Your task to perform on an android device: set default search engine in the chrome app Image 0: 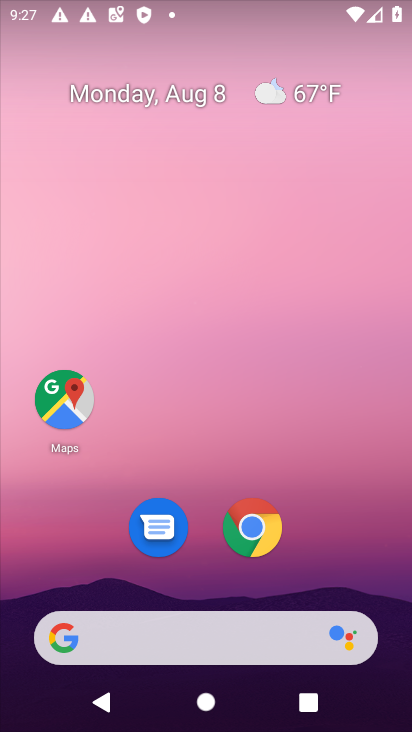
Step 0: click (252, 517)
Your task to perform on an android device: set default search engine in the chrome app Image 1: 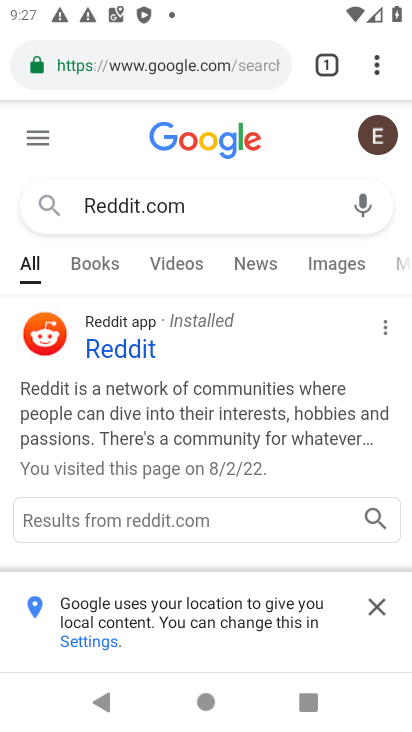
Step 1: click (375, 60)
Your task to perform on an android device: set default search engine in the chrome app Image 2: 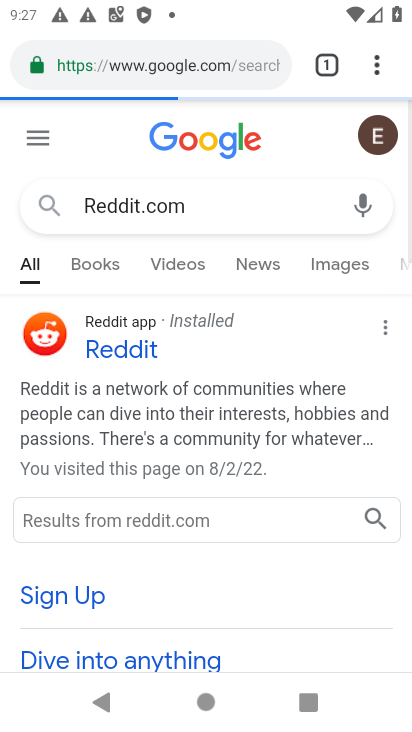
Step 2: click (375, 60)
Your task to perform on an android device: set default search engine in the chrome app Image 3: 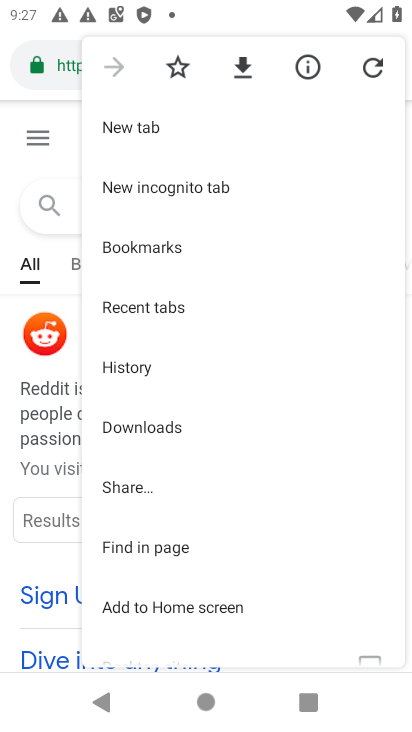
Step 3: drag from (272, 617) to (273, 408)
Your task to perform on an android device: set default search engine in the chrome app Image 4: 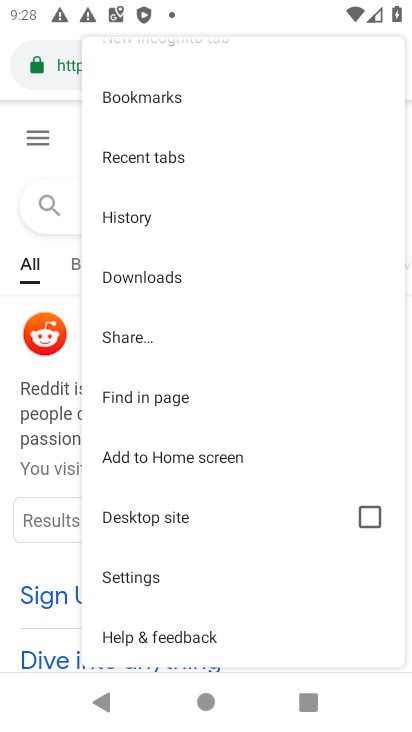
Step 4: click (138, 578)
Your task to perform on an android device: set default search engine in the chrome app Image 5: 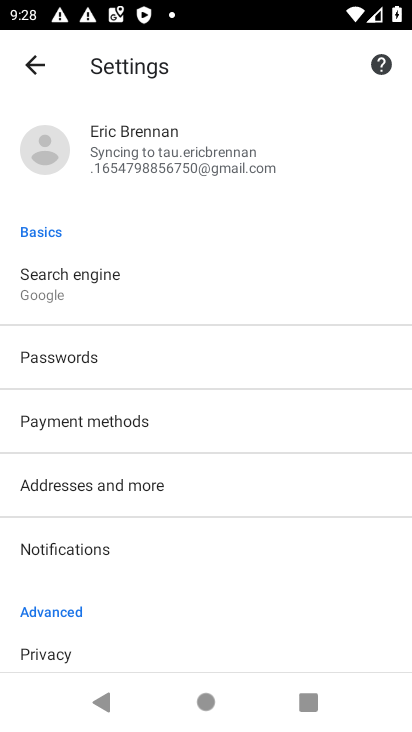
Step 5: click (75, 282)
Your task to perform on an android device: set default search engine in the chrome app Image 6: 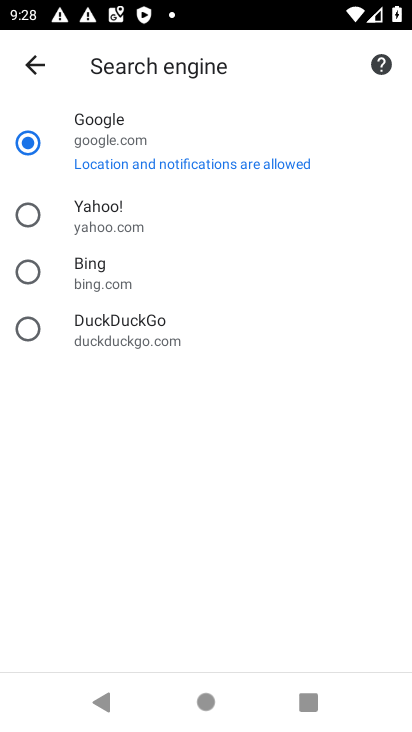
Step 6: task complete